Your task to perform on an android device: What's on the menu at Denny's? Image 0: 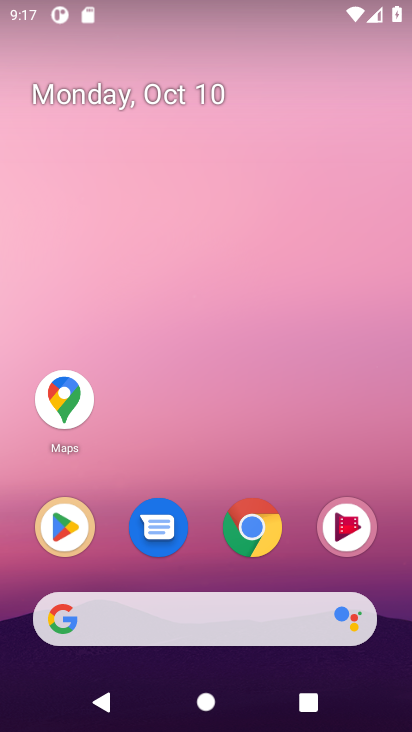
Step 0: click (250, 546)
Your task to perform on an android device: What's on the menu at Denny's? Image 1: 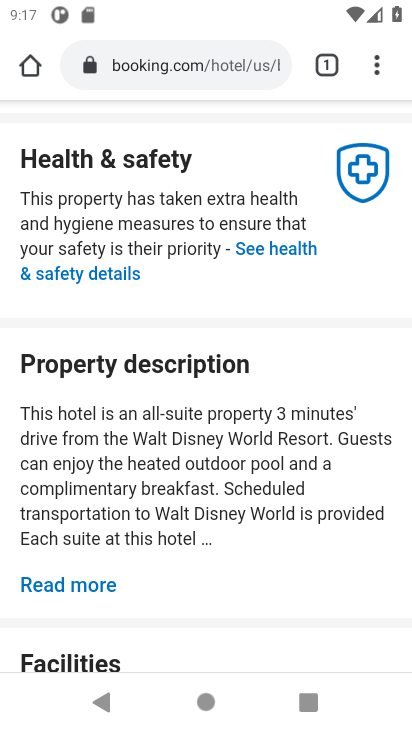
Step 1: click (202, 68)
Your task to perform on an android device: What's on the menu at Denny's? Image 2: 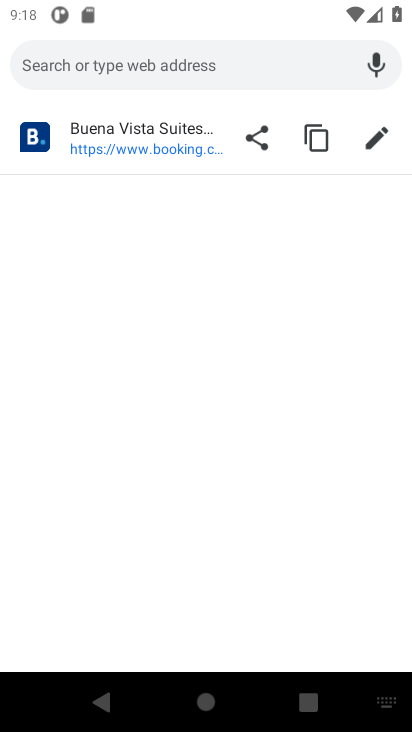
Step 2: type "What's on the menu at Denny's?"
Your task to perform on an android device: What's on the menu at Denny's? Image 3: 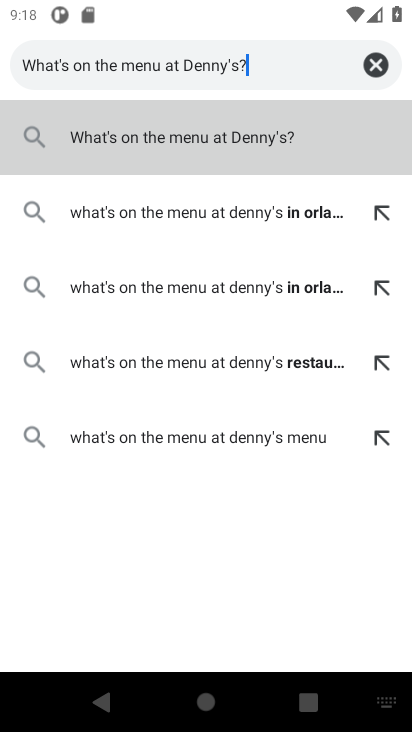
Step 3: type ""
Your task to perform on an android device: What's on the menu at Denny's? Image 4: 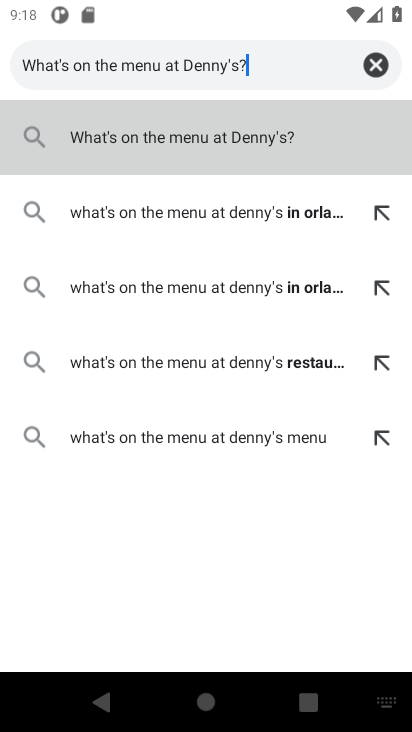
Step 4: click (323, 150)
Your task to perform on an android device: What's on the menu at Denny's? Image 5: 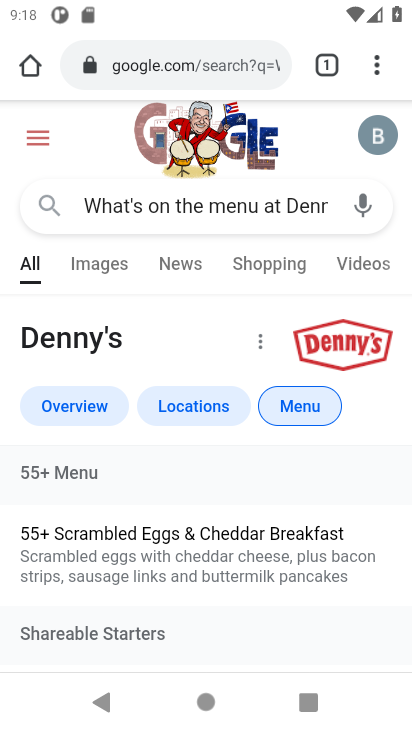
Step 5: drag from (249, 534) to (262, 345)
Your task to perform on an android device: What's on the menu at Denny's? Image 6: 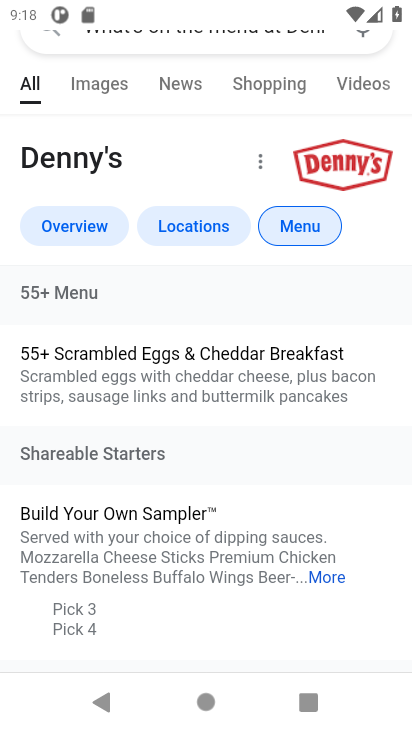
Step 6: drag from (239, 495) to (312, 198)
Your task to perform on an android device: What's on the menu at Denny's? Image 7: 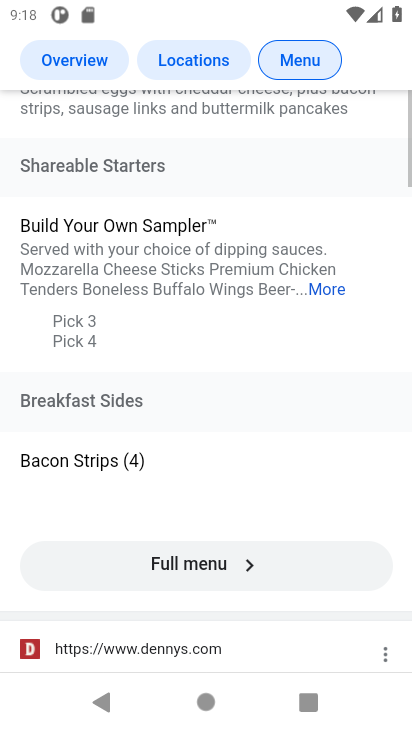
Step 7: drag from (245, 533) to (323, 220)
Your task to perform on an android device: What's on the menu at Denny's? Image 8: 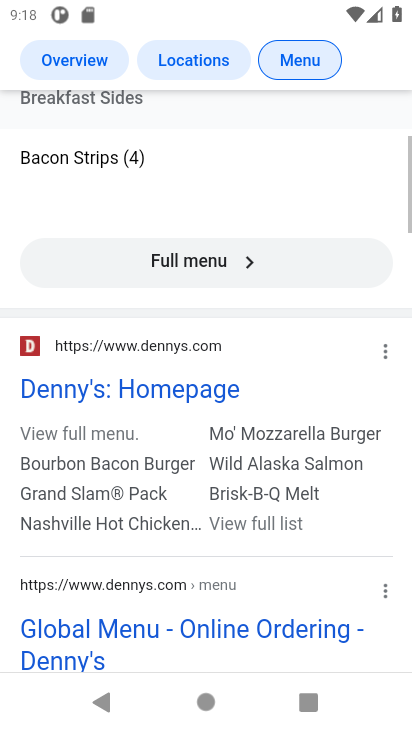
Step 8: drag from (254, 506) to (312, 280)
Your task to perform on an android device: What's on the menu at Denny's? Image 9: 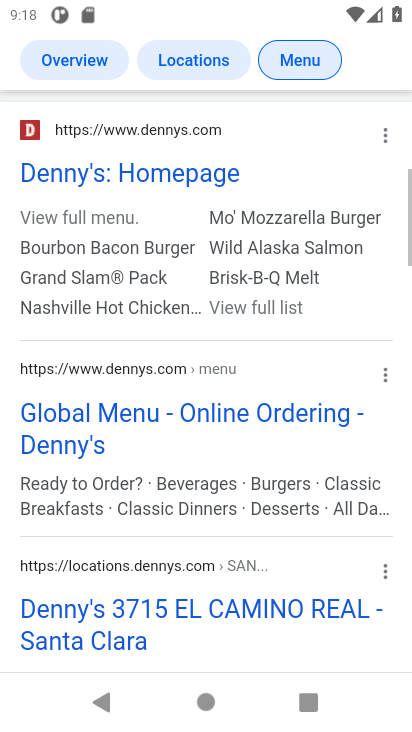
Step 9: drag from (260, 574) to (340, 200)
Your task to perform on an android device: What's on the menu at Denny's? Image 10: 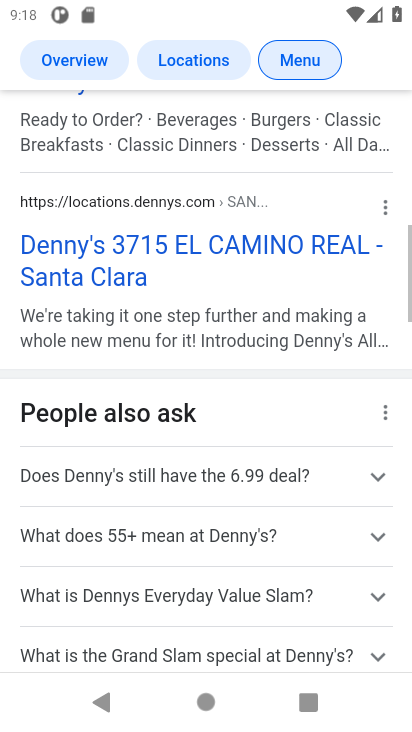
Step 10: drag from (292, 512) to (332, 315)
Your task to perform on an android device: What's on the menu at Denny's? Image 11: 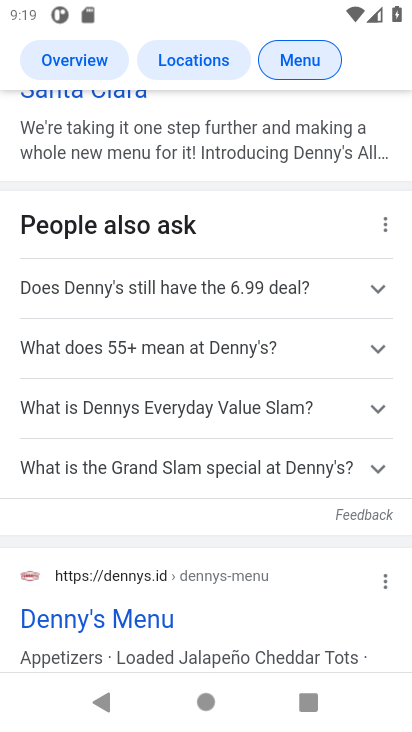
Step 11: click (98, 625)
Your task to perform on an android device: What's on the menu at Denny's? Image 12: 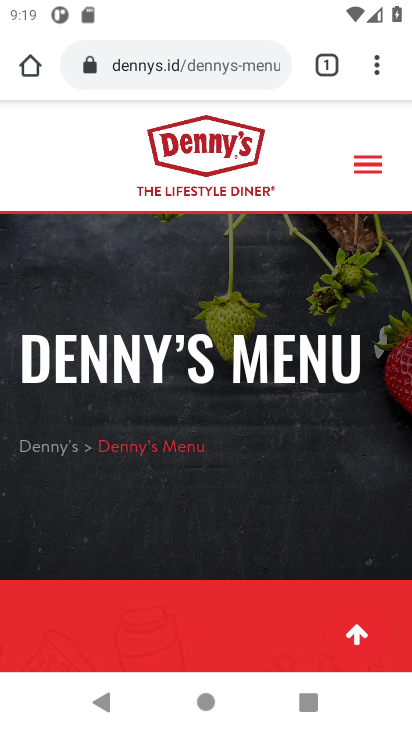
Step 12: task complete